Your task to perform on an android device: toggle sleep mode Image 0: 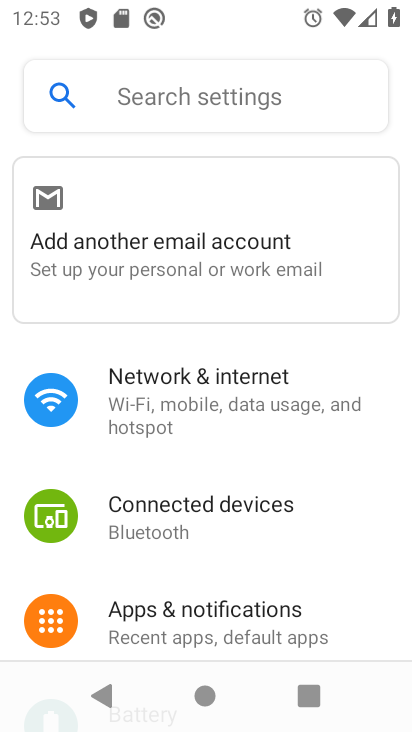
Step 0: drag from (348, 545) to (341, 156)
Your task to perform on an android device: toggle sleep mode Image 1: 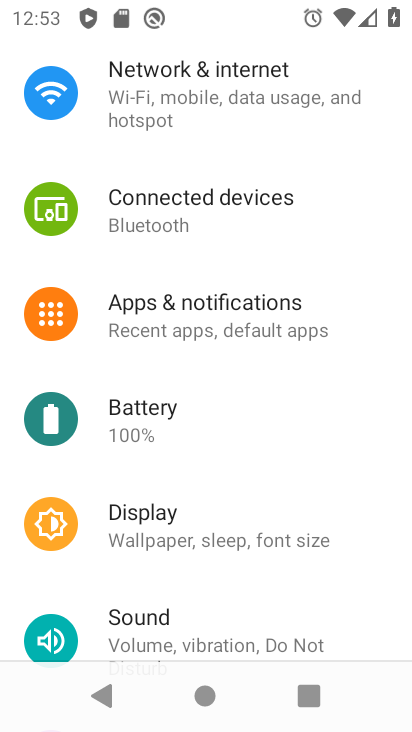
Step 1: click (142, 525)
Your task to perform on an android device: toggle sleep mode Image 2: 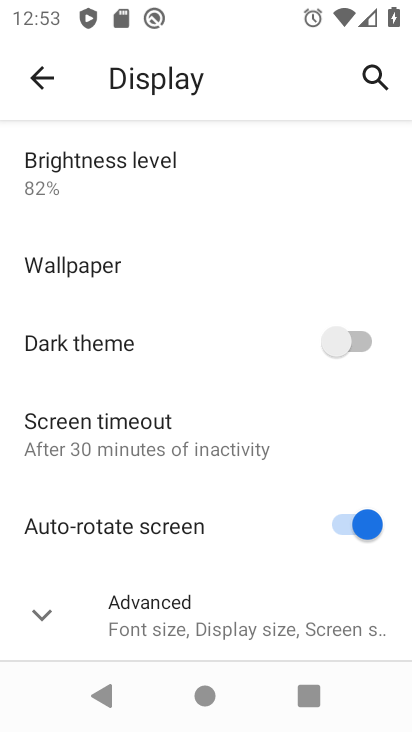
Step 2: click (40, 616)
Your task to perform on an android device: toggle sleep mode Image 3: 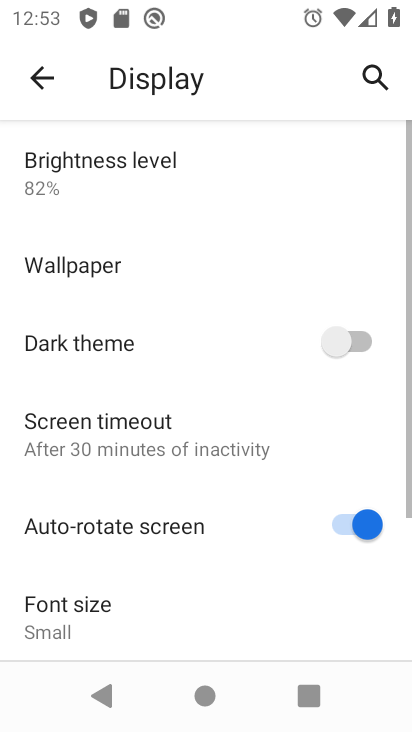
Step 3: task complete